Your task to perform on an android device: Open calendar and show me the second week of next month Image 0: 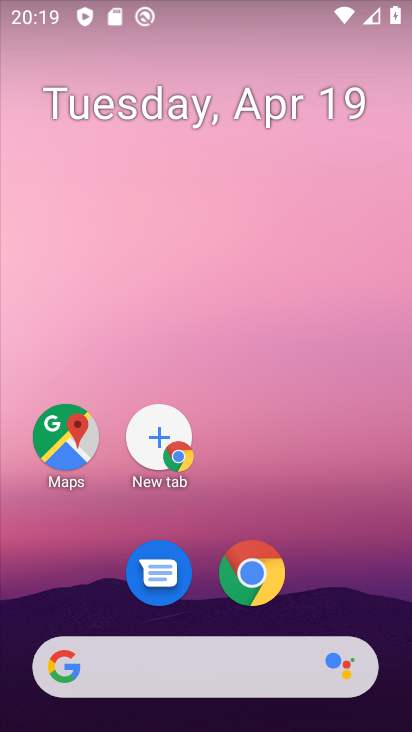
Step 0: drag from (363, 586) to (400, 44)
Your task to perform on an android device: Open calendar and show me the second week of next month Image 1: 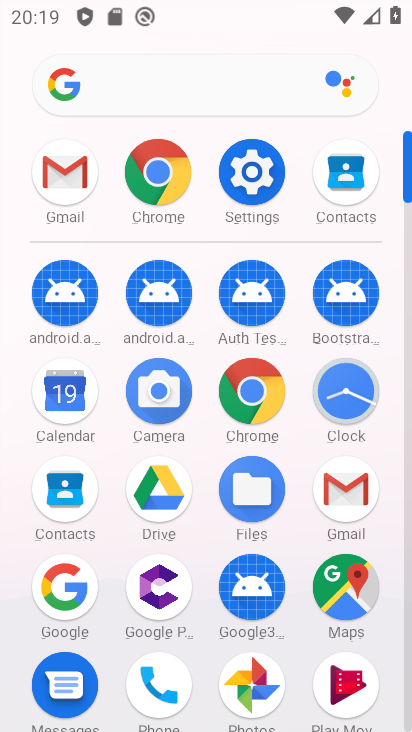
Step 1: click (51, 395)
Your task to perform on an android device: Open calendar and show me the second week of next month Image 2: 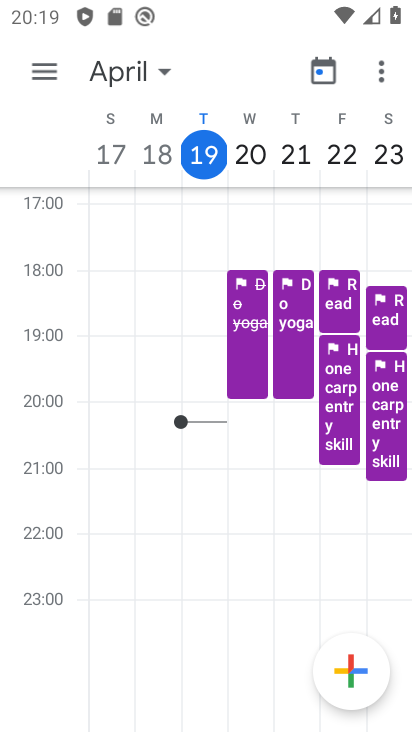
Step 2: click (168, 67)
Your task to perform on an android device: Open calendar and show me the second week of next month Image 3: 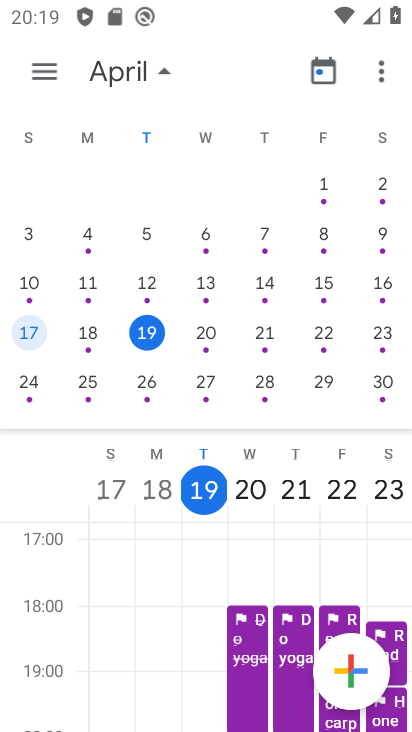
Step 3: drag from (389, 252) to (98, 212)
Your task to perform on an android device: Open calendar and show me the second week of next month Image 4: 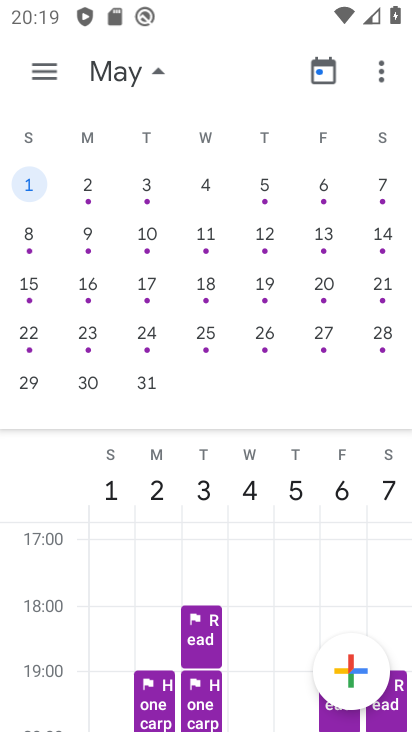
Step 4: click (142, 228)
Your task to perform on an android device: Open calendar and show me the second week of next month Image 5: 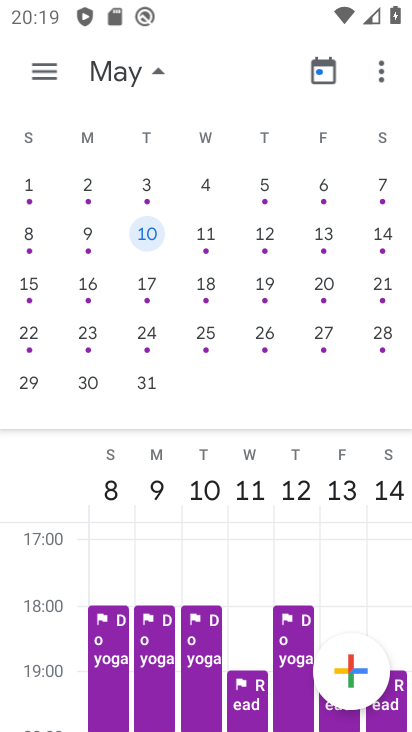
Step 5: task complete